Your task to perform on an android device: Turn on the flashlight Image 0: 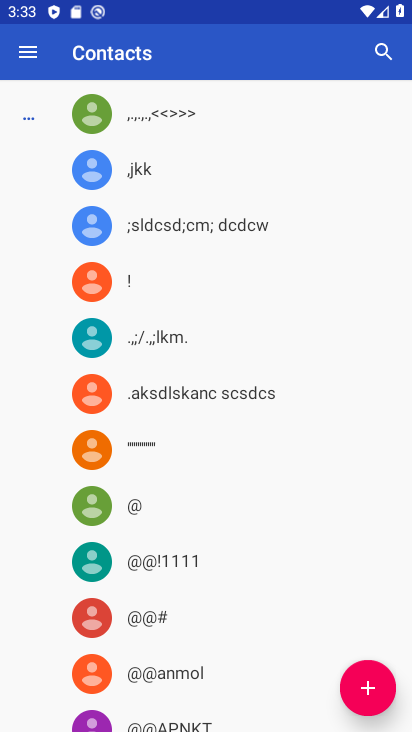
Step 0: press back button
Your task to perform on an android device: Turn on the flashlight Image 1: 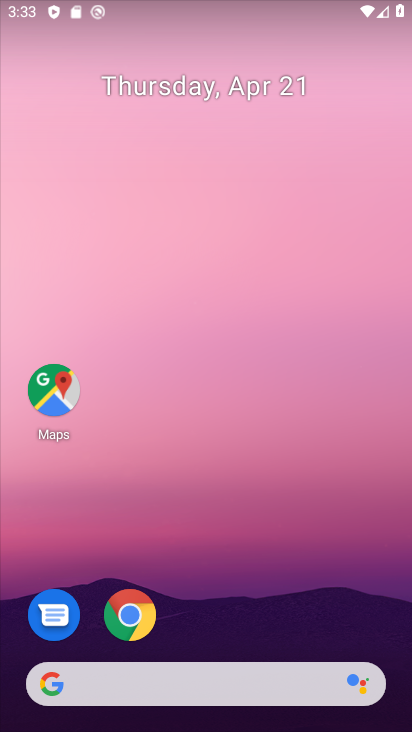
Step 1: task complete